Your task to perform on an android device: Go to eBay Image 0: 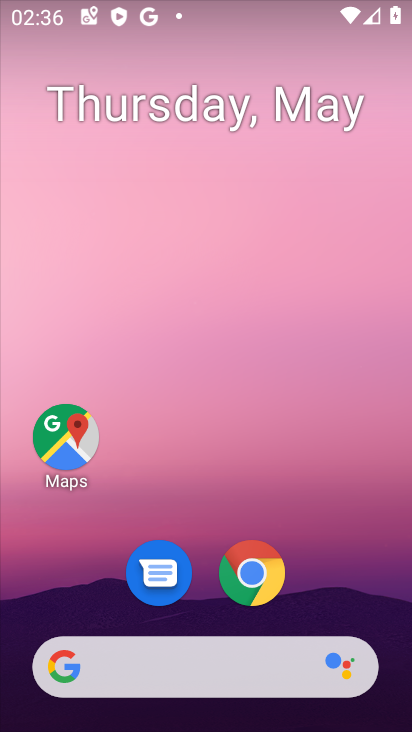
Step 0: click (252, 571)
Your task to perform on an android device: Go to eBay Image 1: 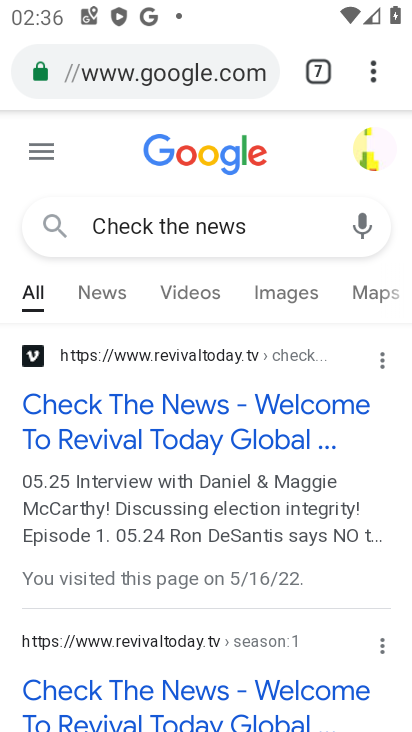
Step 1: click (360, 62)
Your task to perform on an android device: Go to eBay Image 2: 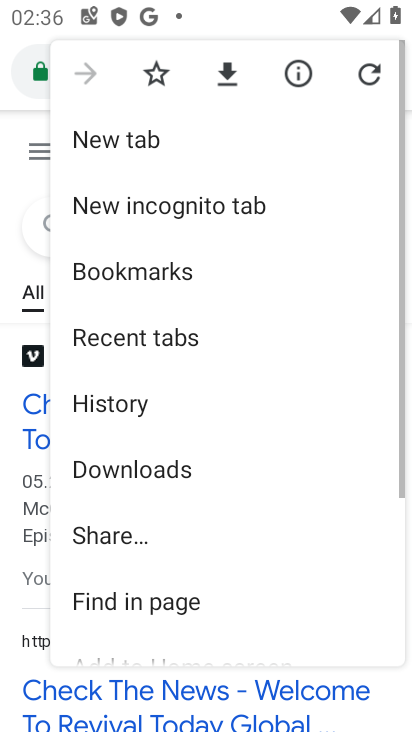
Step 2: click (98, 135)
Your task to perform on an android device: Go to eBay Image 3: 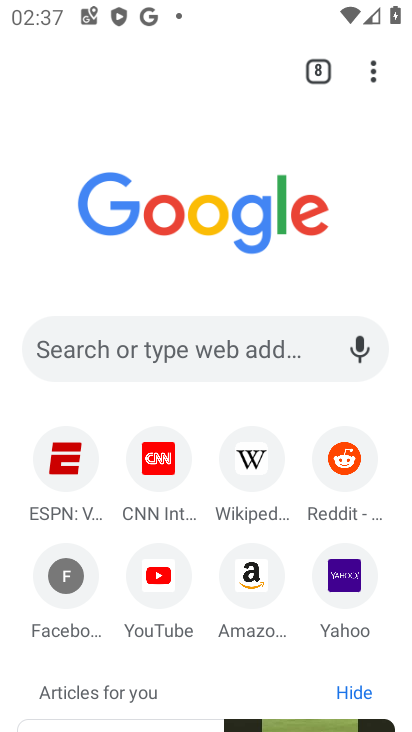
Step 3: click (143, 354)
Your task to perform on an android device: Go to eBay Image 4: 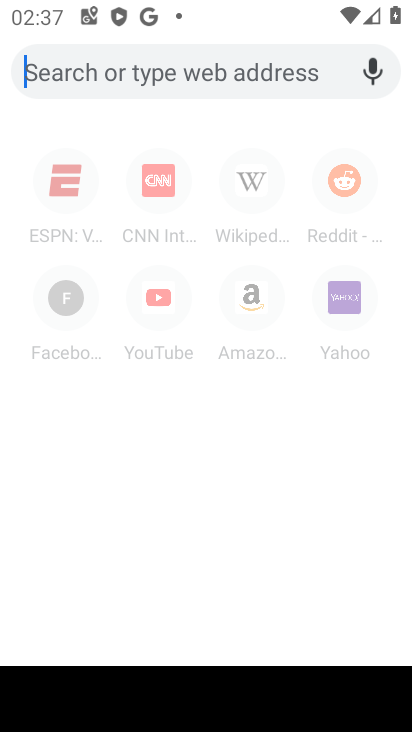
Step 4: type "eBay"
Your task to perform on an android device: Go to eBay Image 5: 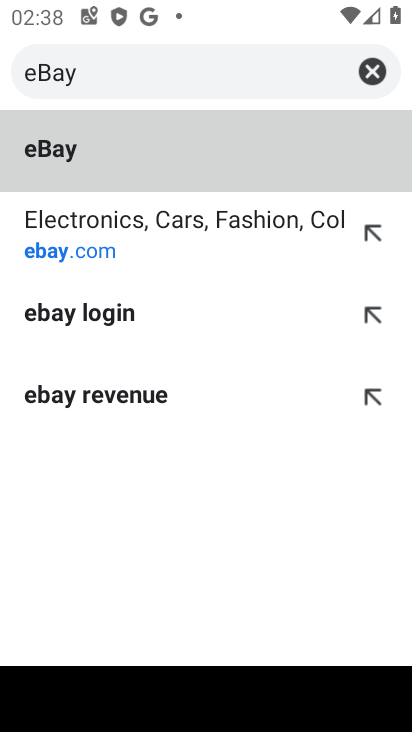
Step 5: click (159, 160)
Your task to perform on an android device: Go to eBay Image 6: 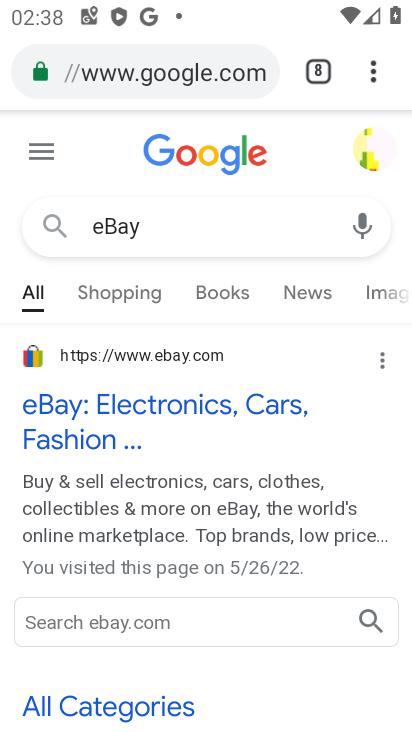
Step 6: task complete